Your task to perform on an android device: Open calendar and show me the third week of next month Image 0: 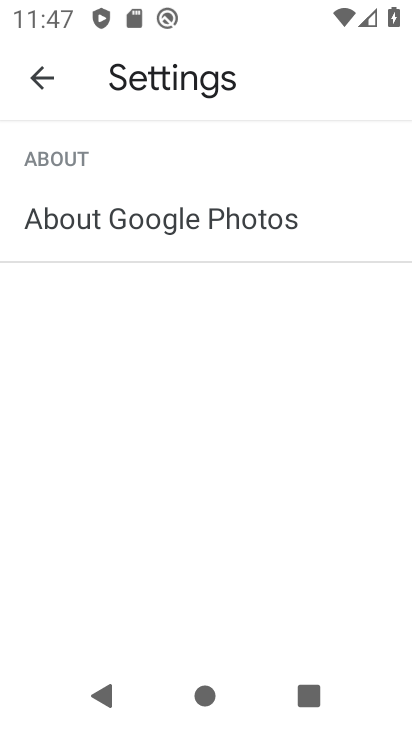
Step 0: press home button
Your task to perform on an android device: Open calendar and show me the third week of next month Image 1: 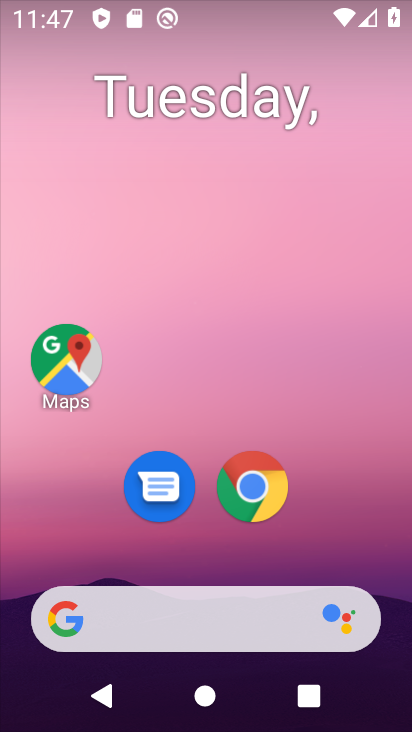
Step 1: drag from (108, 569) to (184, 135)
Your task to perform on an android device: Open calendar and show me the third week of next month Image 2: 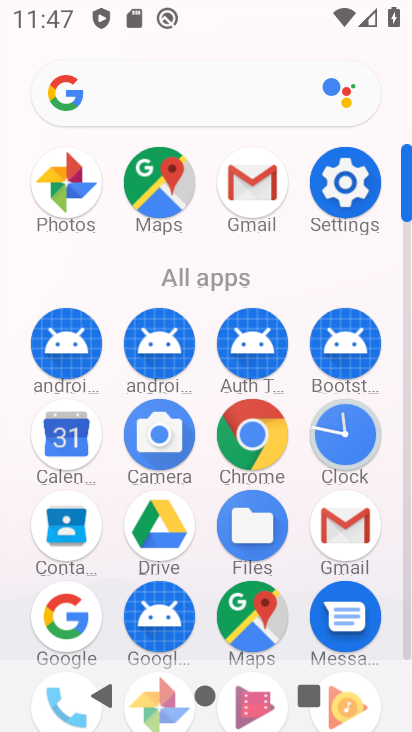
Step 2: drag from (87, 637) to (152, 363)
Your task to perform on an android device: Open calendar and show me the third week of next month Image 3: 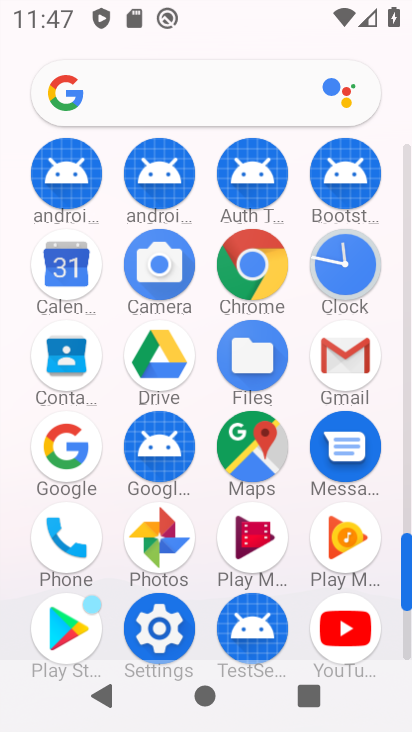
Step 3: click (65, 271)
Your task to perform on an android device: Open calendar and show me the third week of next month Image 4: 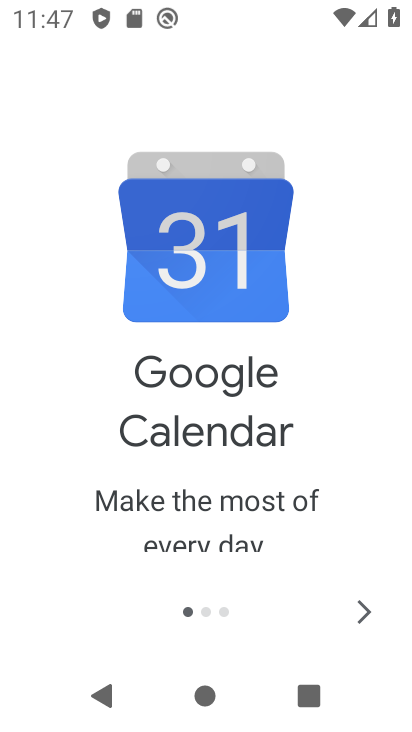
Step 4: click (333, 608)
Your task to perform on an android device: Open calendar and show me the third week of next month Image 5: 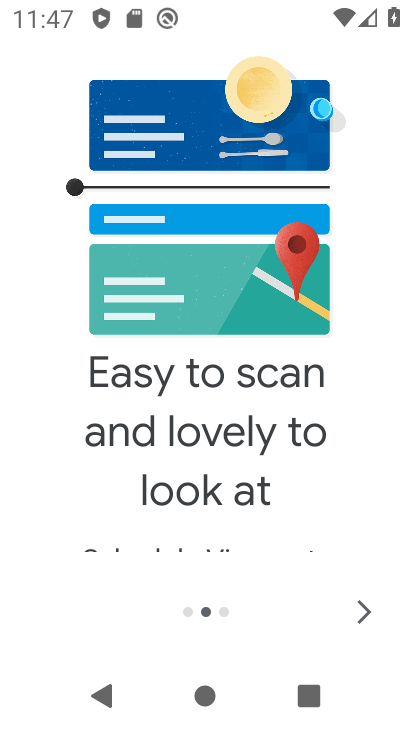
Step 5: click (359, 626)
Your task to perform on an android device: Open calendar and show me the third week of next month Image 6: 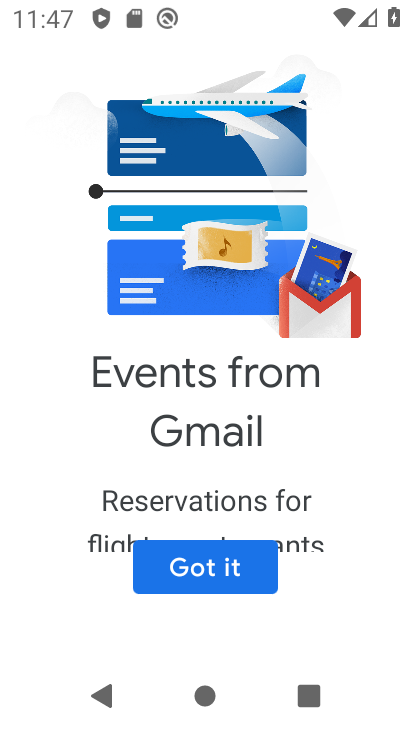
Step 6: click (354, 614)
Your task to perform on an android device: Open calendar and show me the third week of next month Image 7: 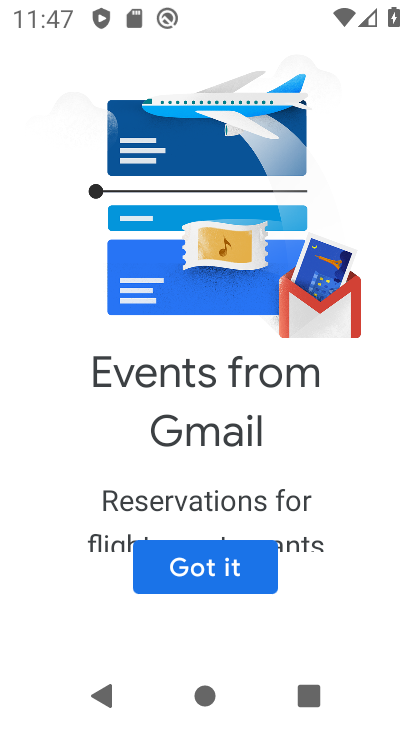
Step 7: click (258, 576)
Your task to perform on an android device: Open calendar and show me the third week of next month Image 8: 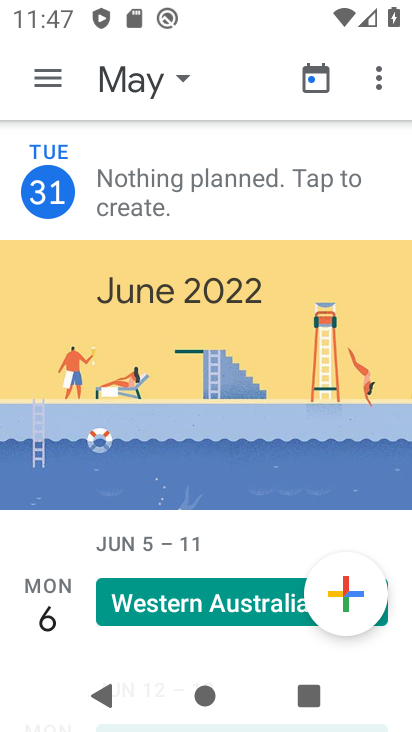
Step 8: click (137, 80)
Your task to perform on an android device: Open calendar and show me the third week of next month Image 9: 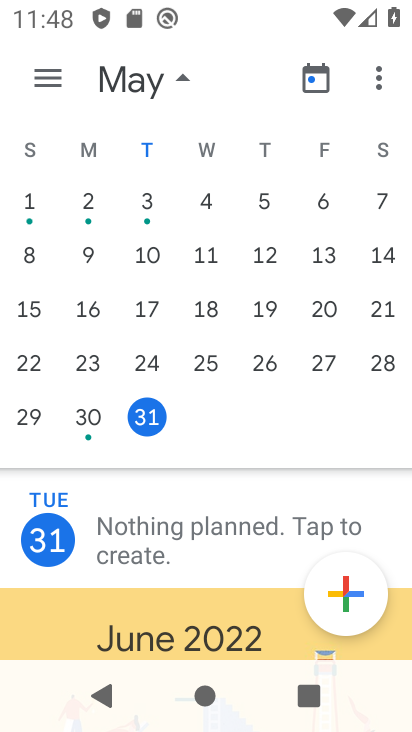
Step 9: drag from (334, 406) to (21, 381)
Your task to perform on an android device: Open calendar and show me the third week of next month Image 10: 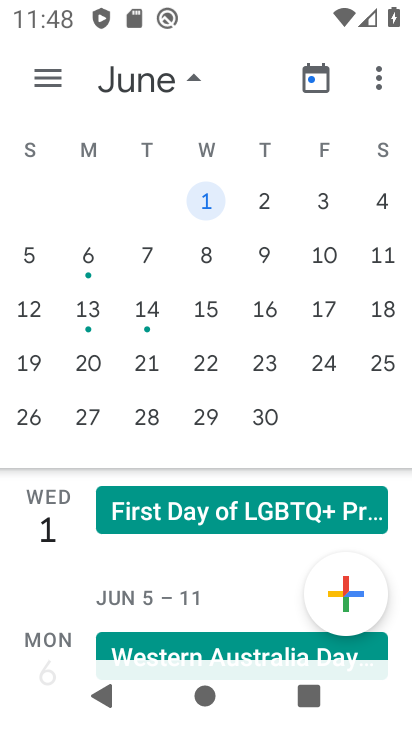
Step 10: click (37, 362)
Your task to perform on an android device: Open calendar and show me the third week of next month Image 11: 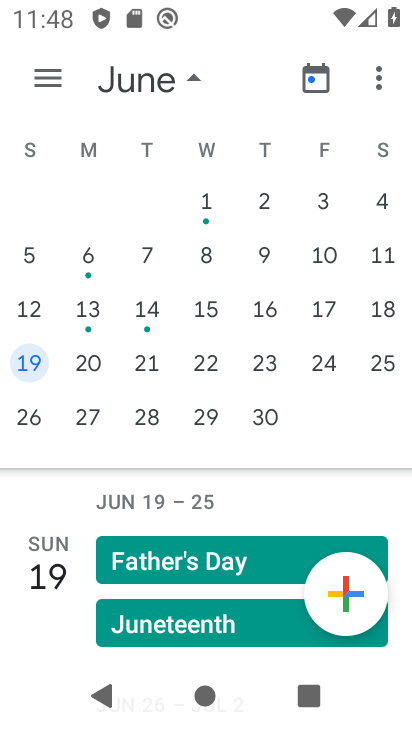
Step 11: click (62, 79)
Your task to perform on an android device: Open calendar and show me the third week of next month Image 12: 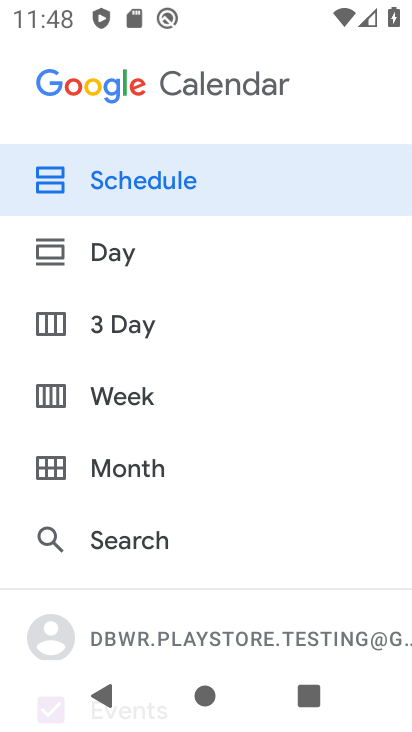
Step 12: click (125, 411)
Your task to perform on an android device: Open calendar and show me the third week of next month Image 13: 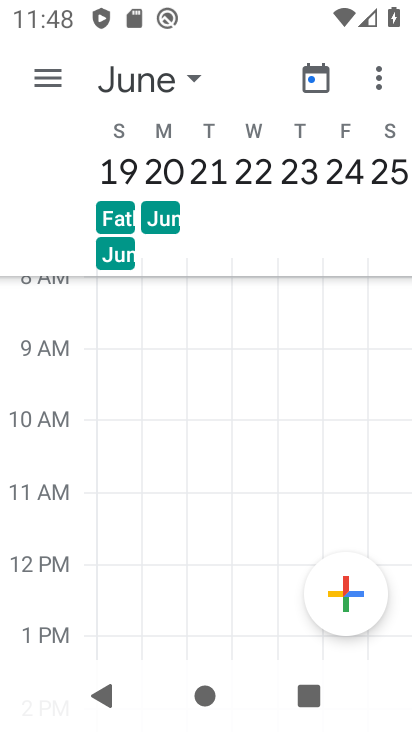
Step 13: task complete